Your task to perform on an android device: Go to calendar. Show me events next week Image 0: 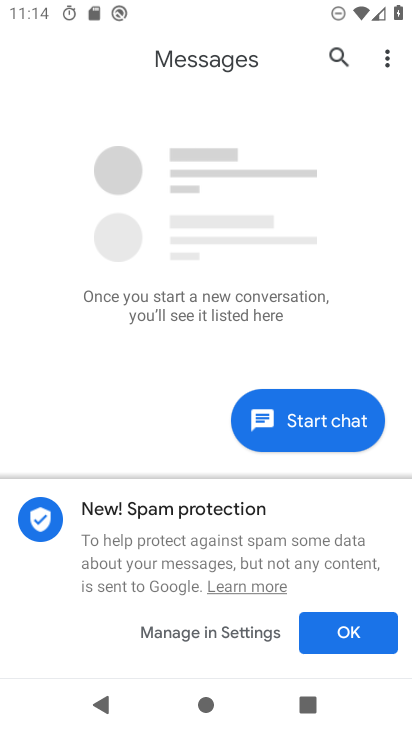
Step 0: press home button
Your task to perform on an android device: Go to calendar. Show me events next week Image 1: 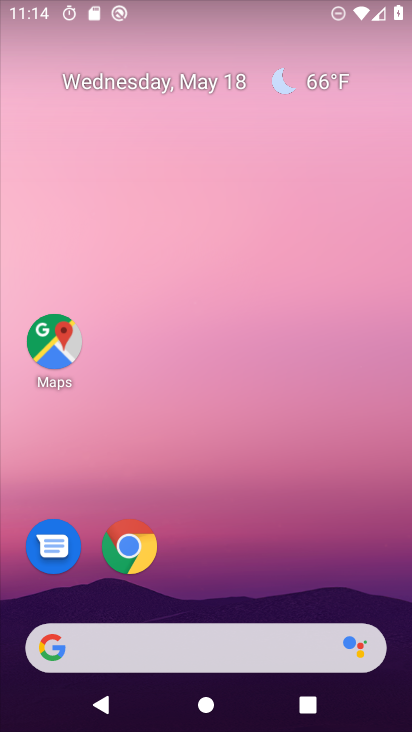
Step 1: click (212, 88)
Your task to perform on an android device: Go to calendar. Show me events next week Image 2: 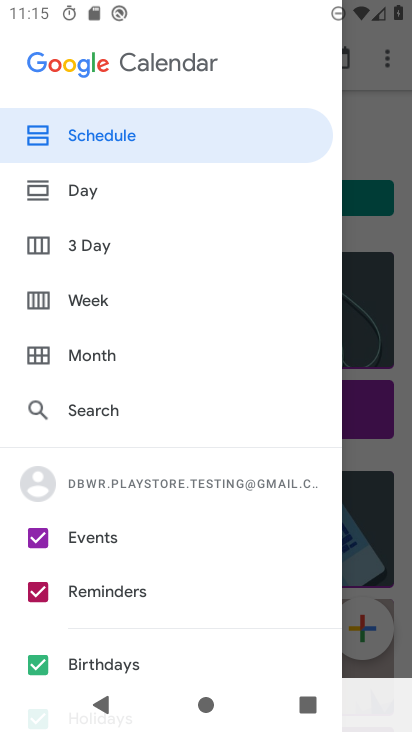
Step 2: click (86, 292)
Your task to perform on an android device: Go to calendar. Show me events next week Image 3: 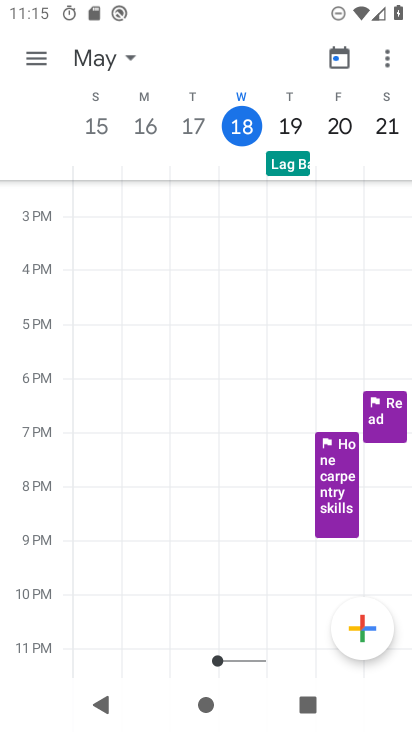
Step 3: task complete